Your task to perform on an android device: Open my contact list Image 0: 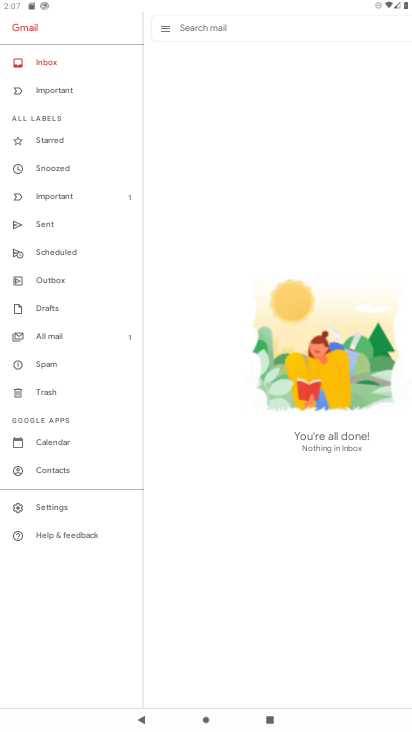
Step 0: press home button
Your task to perform on an android device: Open my contact list Image 1: 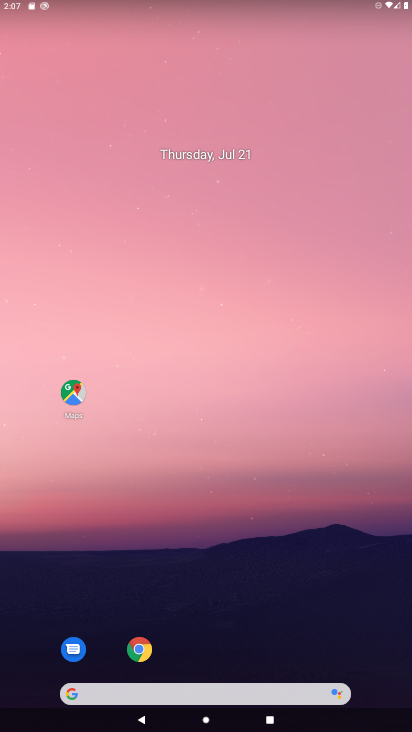
Step 1: drag from (299, 568) to (340, 77)
Your task to perform on an android device: Open my contact list Image 2: 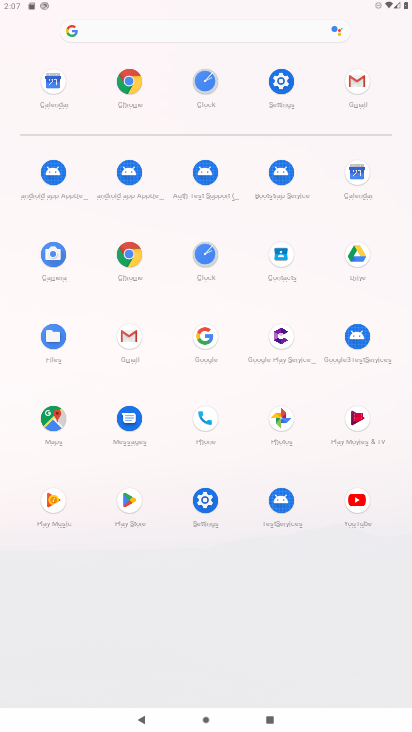
Step 2: click (190, 418)
Your task to perform on an android device: Open my contact list Image 3: 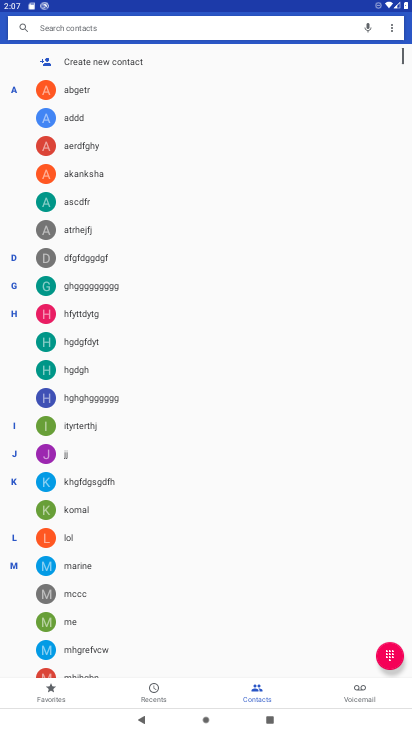
Step 3: task complete